Your task to perform on an android device: delete a single message in the gmail app Image 0: 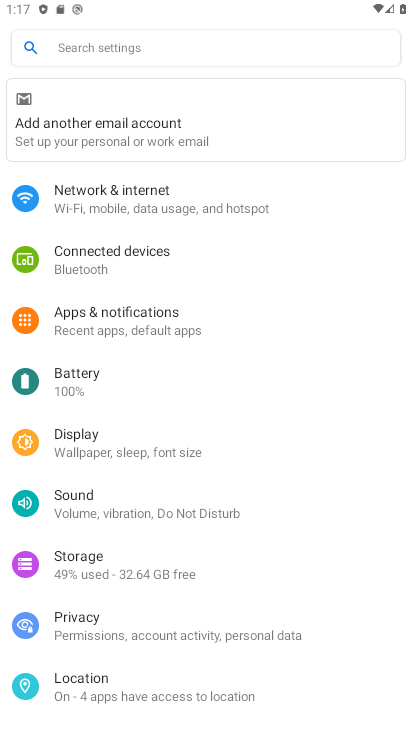
Step 0: press home button
Your task to perform on an android device: delete a single message in the gmail app Image 1: 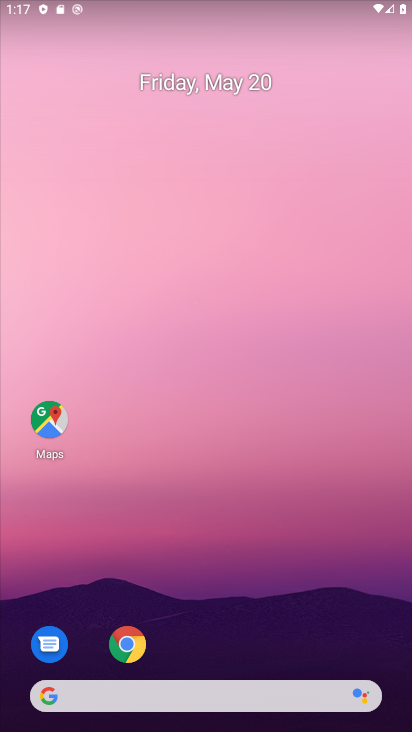
Step 1: drag from (200, 636) to (145, 72)
Your task to perform on an android device: delete a single message in the gmail app Image 2: 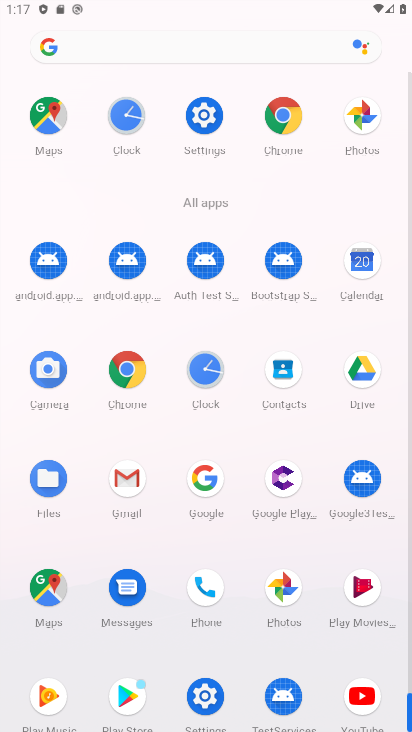
Step 2: click (124, 469)
Your task to perform on an android device: delete a single message in the gmail app Image 3: 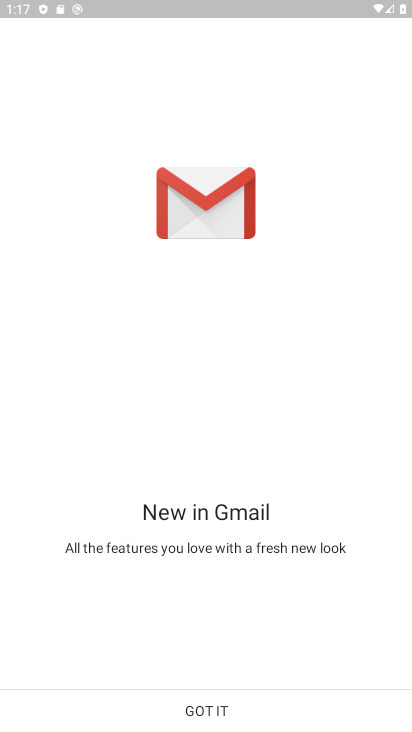
Step 3: click (162, 701)
Your task to perform on an android device: delete a single message in the gmail app Image 4: 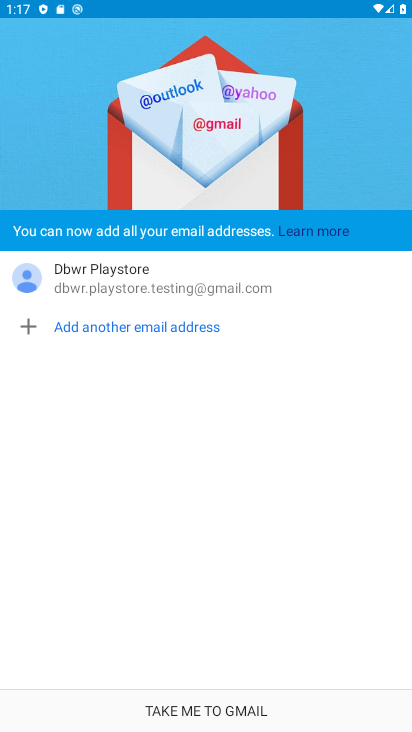
Step 4: click (162, 701)
Your task to perform on an android device: delete a single message in the gmail app Image 5: 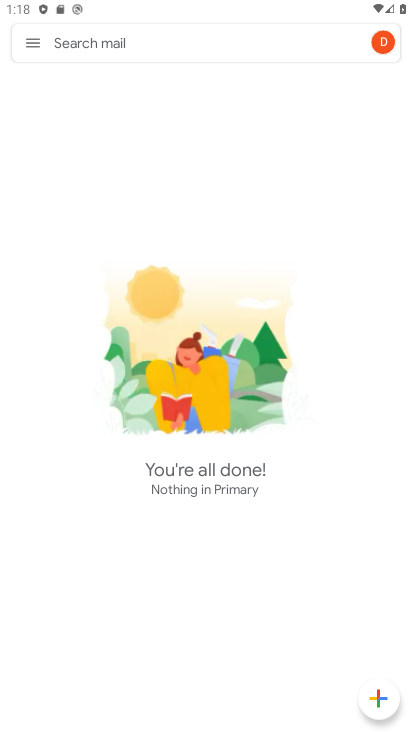
Step 5: task complete